Your task to perform on an android device: toggle pop-ups in chrome Image 0: 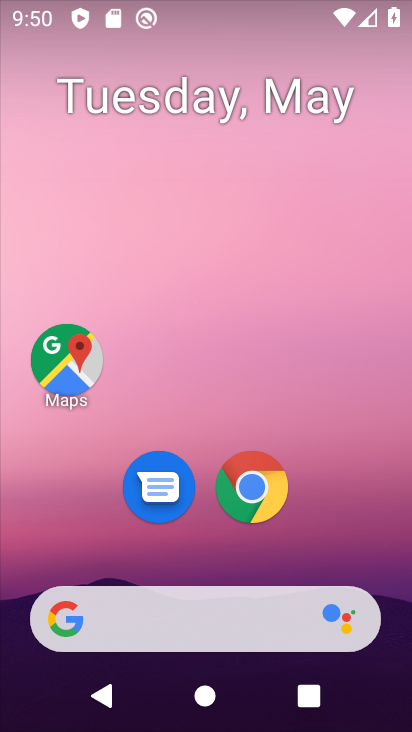
Step 0: drag from (204, 555) to (221, 169)
Your task to perform on an android device: toggle pop-ups in chrome Image 1: 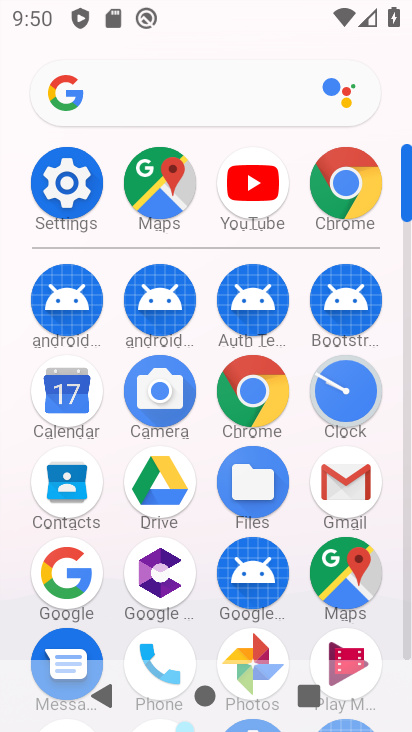
Step 1: click (248, 388)
Your task to perform on an android device: toggle pop-ups in chrome Image 2: 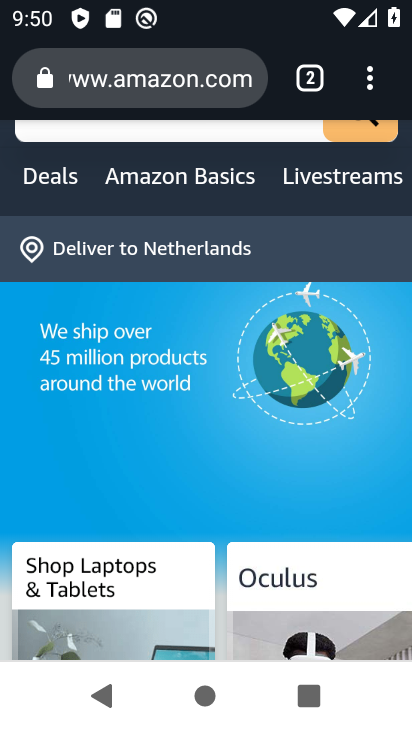
Step 2: drag from (242, 590) to (281, 279)
Your task to perform on an android device: toggle pop-ups in chrome Image 3: 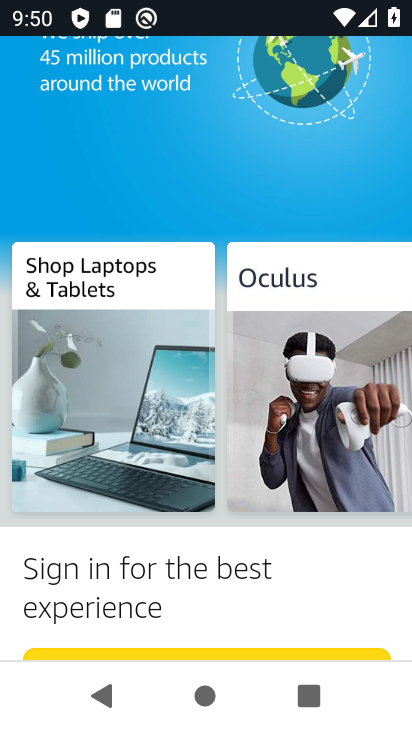
Step 3: drag from (247, 187) to (407, 703)
Your task to perform on an android device: toggle pop-ups in chrome Image 4: 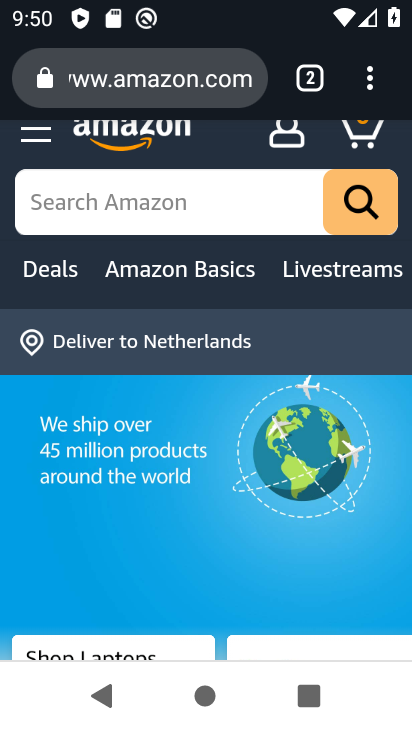
Step 4: click (364, 69)
Your task to perform on an android device: toggle pop-ups in chrome Image 5: 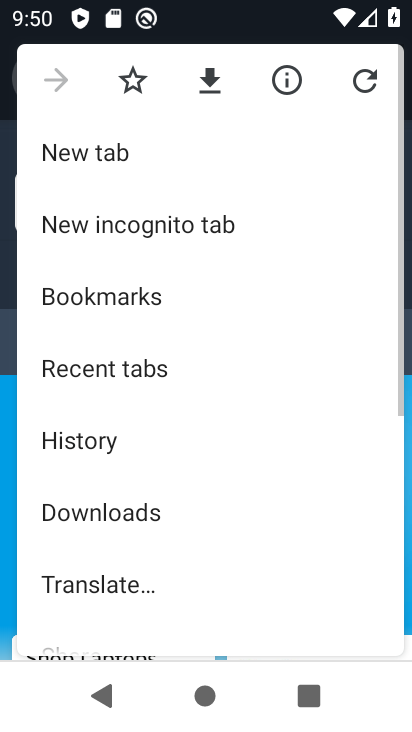
Step 5: drag from (194, 548) to (285, 165)
Your task to perform on an android device: toggle pop-ups in chrome Image 6: 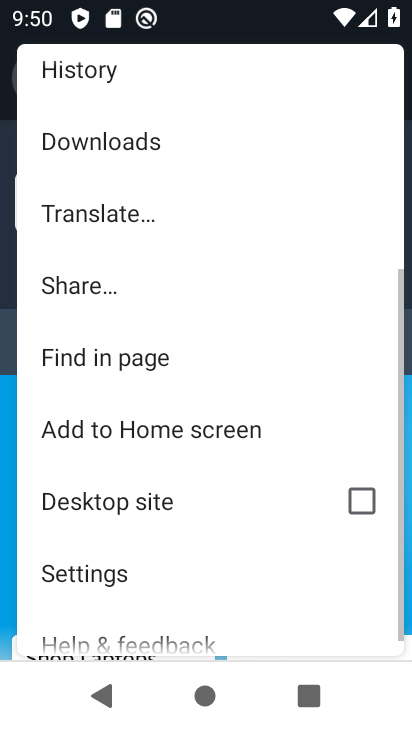
Step 6: click (131, 559)
Your task to perform on an android device: toggle pop-ups in chrome Image 7: 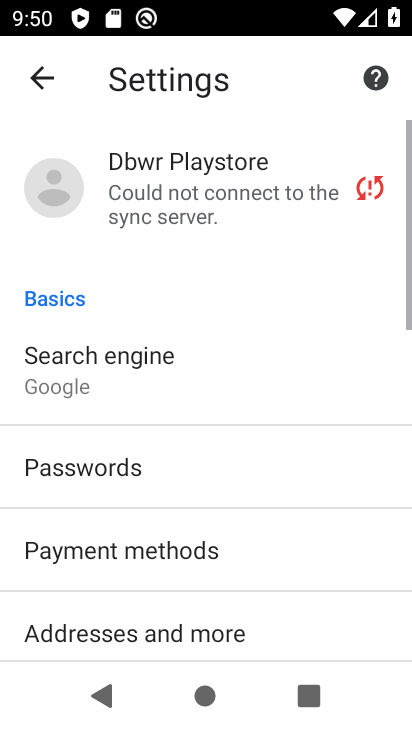
Step 7: drag from (175, 554) to (263, 265)
Your task to perform on an android device: toggle pop-ups in chrome Image 8: 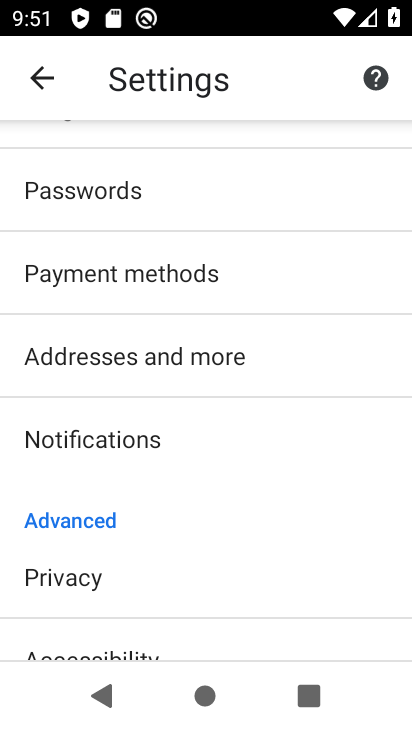
Step 8: drag from (215, 632) to (264, 189)
Your task to perform on an android device: toggle pop-ups in chrome Image 9: 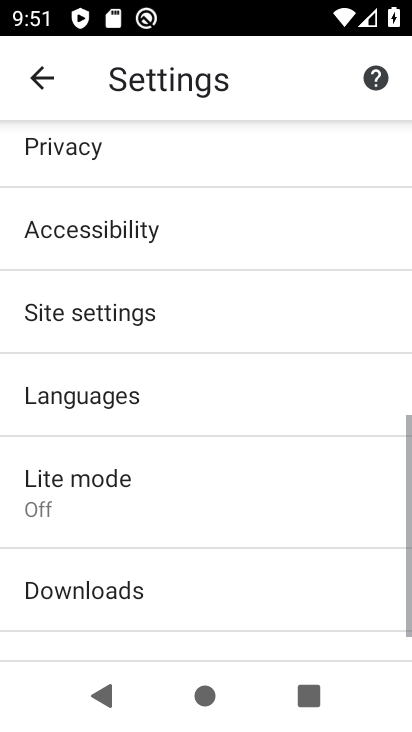
Step 9: drag from (164, 580) to (193, 237)
Your task to perform on an android device: toggle pop-ups in chrome Image 10: 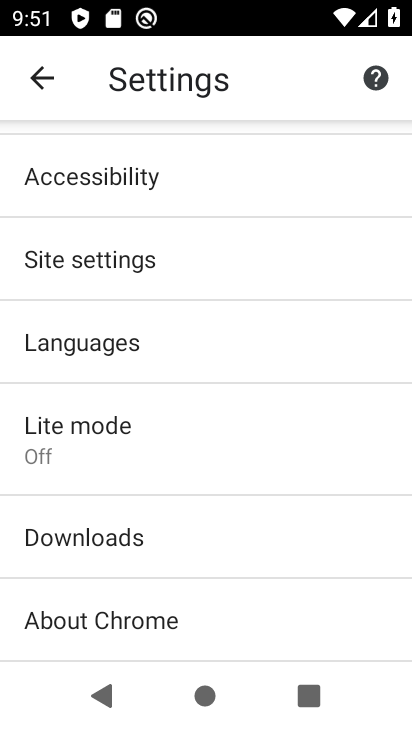
Step 10: click (136, 257)
Your task to perform on an android device: toggle pop-ups in chrome Image 11: 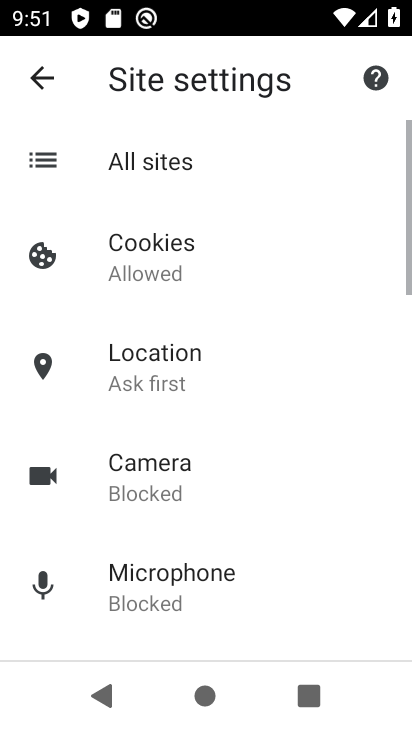
Step 11: drag from (172, 526) to (238, 70)
Your task to perform on an android device: toggle pop-ups in chrome Image 12: 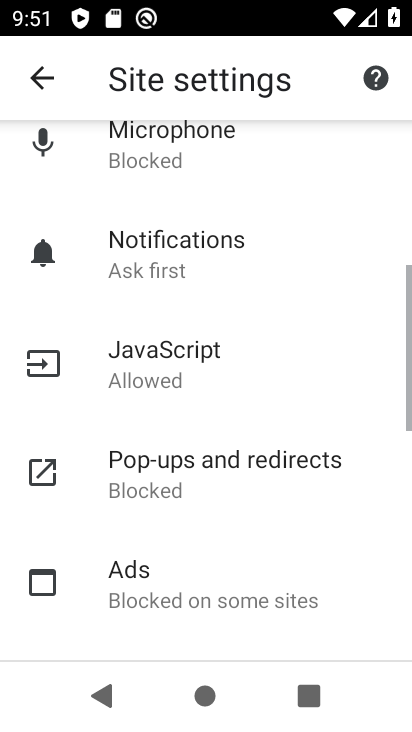
Step 12: click (206, 479)
Your task to perform on an android device: toggle pop-ups in chrome Image 13: 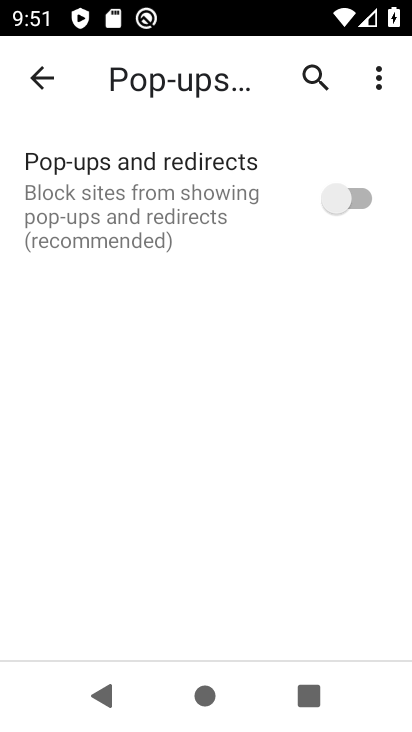
Step 13: click (313, 192)
Your task to perform on an android device: toggle pop-ups in chrome Image 14: 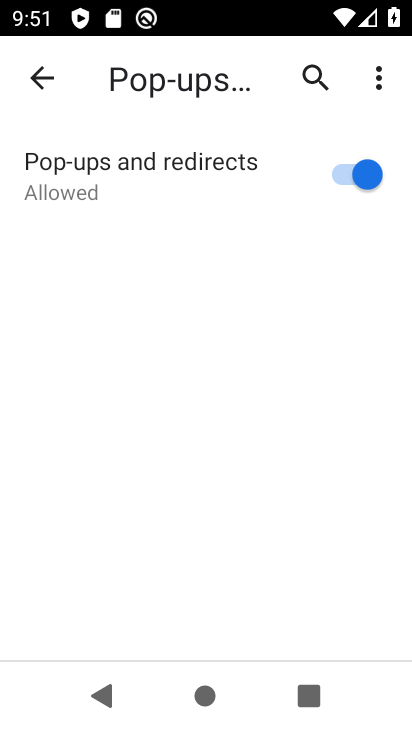
Step 14: task complete